Your task to perform on an android device: turn on sleep mode Image 0: 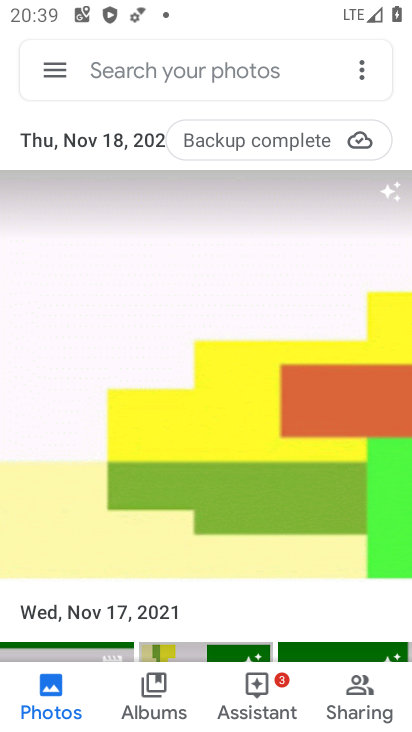
Step 0: press home button
Your task to perform on an android device: turn on sleep mode Image 1: 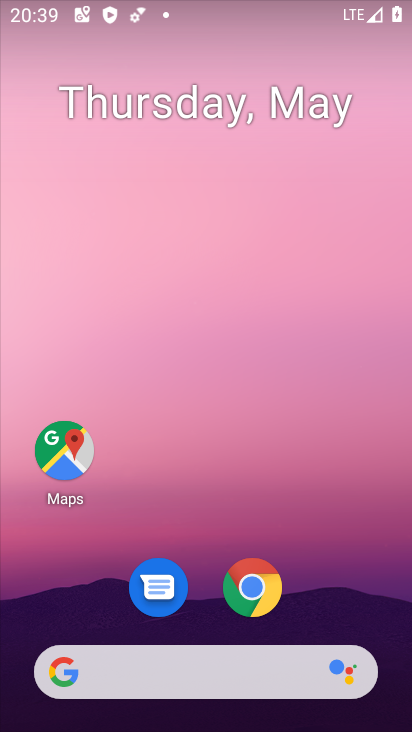
Step 1: drag from (190, 12) to (156, 588)
Your task to perform on an android device: turn on sleep mode Image 2: 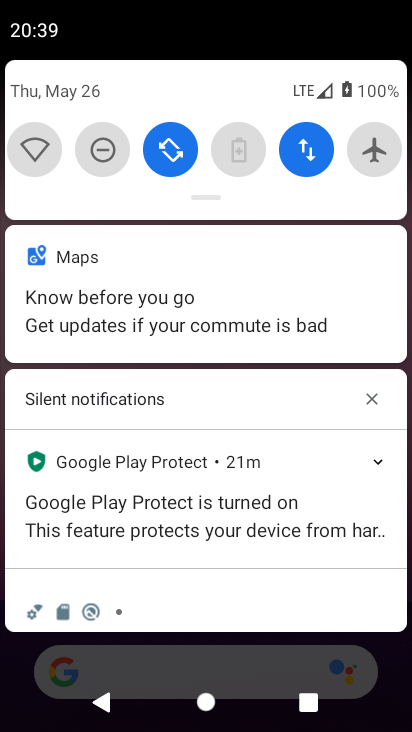
Step 2: drag from (197, 208) to (168, 658)
Your task to perform on an android device: turn on sleep mode Image 3: 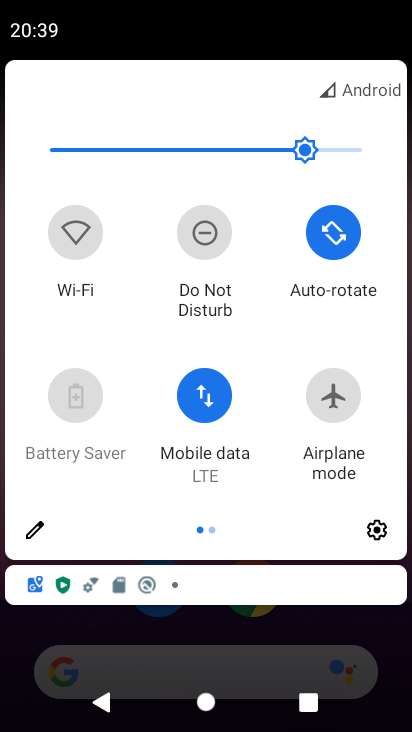
Step 3: click (37, 526)
Your task to perform on an android device: turn on sleep mode Image 4: 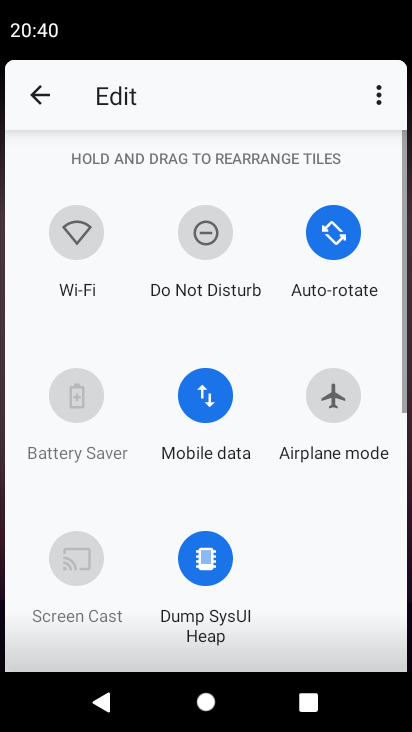
Step 4: drag from (344, 512) to (381, 115)
Your task to perform on an android device: turn on sleep mode Image 5: 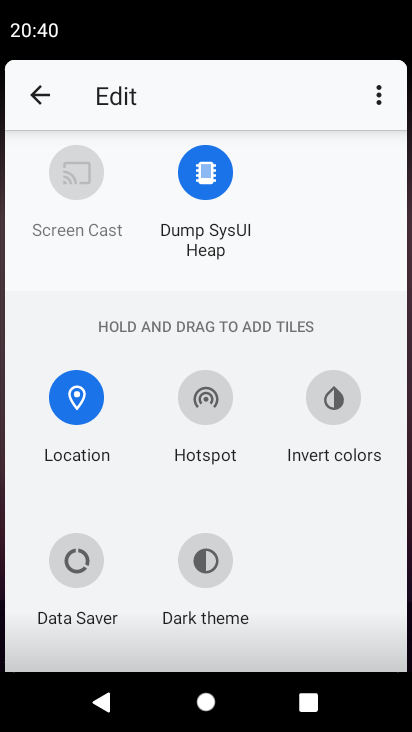
Step 5: drag from (285, 580) to (326, 153)
Your task to perform on an android device: turn on sleep mode Image 6: 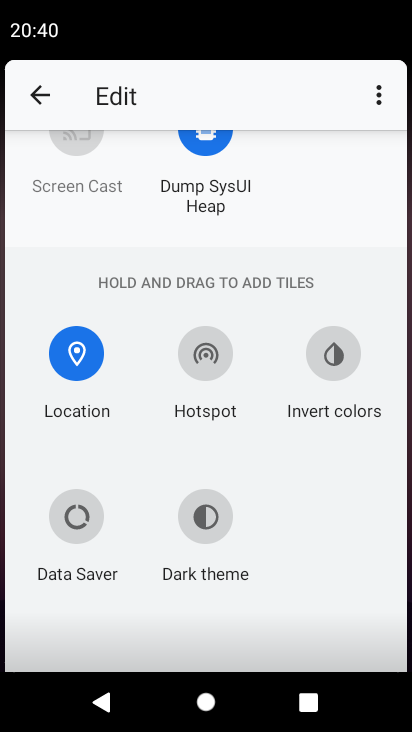
Step 6: press home button
Your task to perform on an android device: turn on sleep mode Image 7: 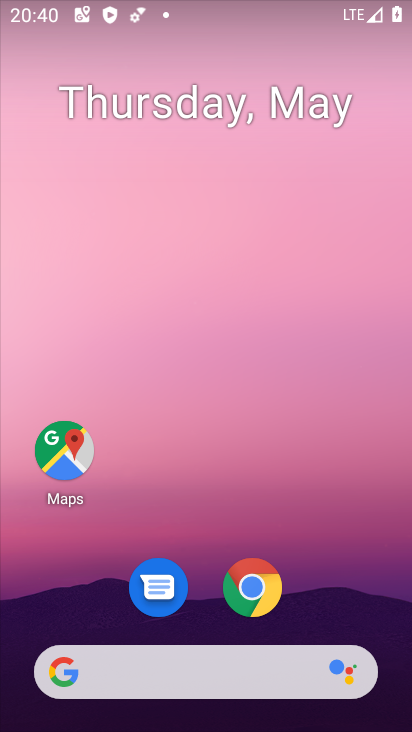
Step 7: drag from (158, 619) to (85, 111)
Your task to perform on an android device: turn on sleep mode Image 8: 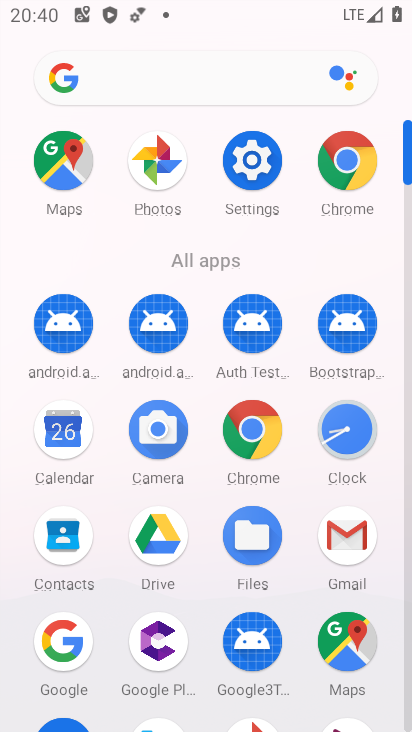
Step 8: click (250, 197)
Your task to perform on an android device: turn on sleep mode Image 9: 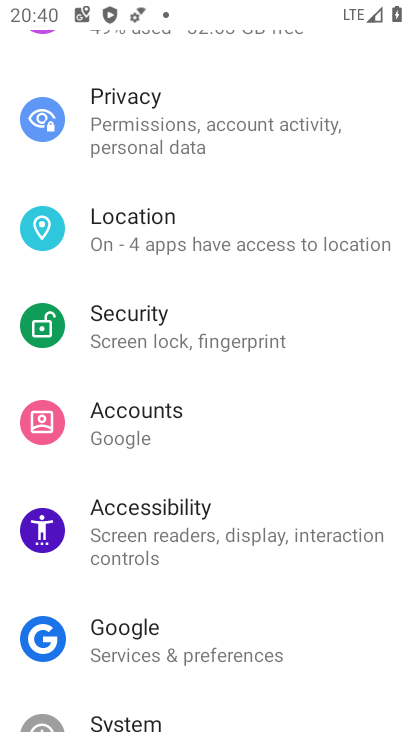
Step 9: task complete